Your task to perform on an android device: open app "Cash App" (install if not already installed) Image 0: 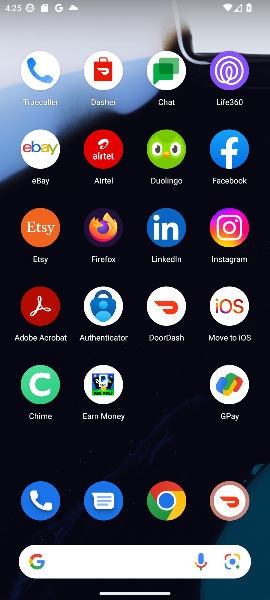
Step 0: press home button
Your task to perform on an android device: open app "Cash App" (install if not already installed) Image 1: 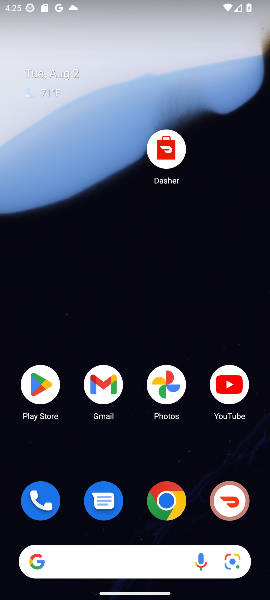
Step 1: click (47, 383)
Your task to perform on an android device: open app "Cash App" (install if not already installed) Image 2: 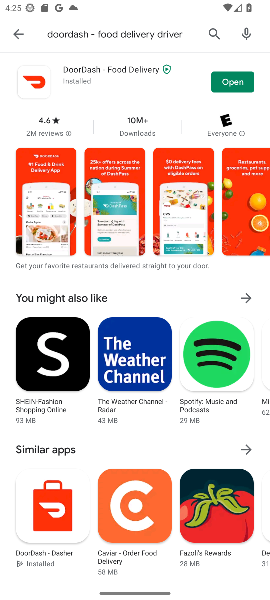
Step 2: click (207, 33)
Your task to perform on an android device: open app "Cash App" (install if not already installed) Image 3: 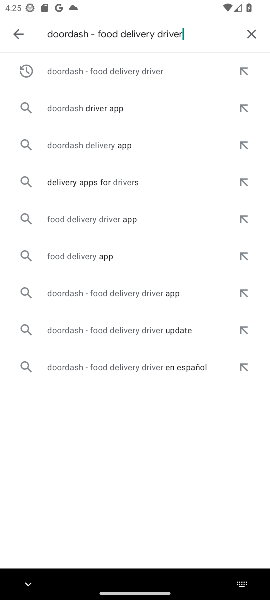
Step 3: click (251, 34)
Your task to perform on an android device: open app "Cash App" (install if not already installed) Image 4: 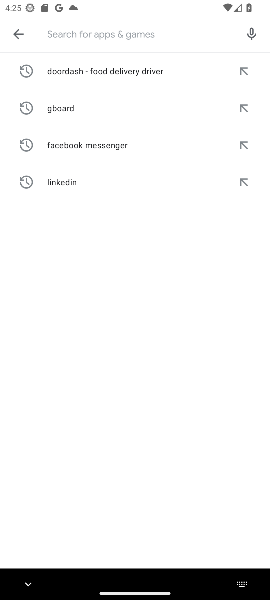
Step 4: type "Cash App"
Your task to perform on an android device: open app "Cash App" (install if not already installed) Image 5: 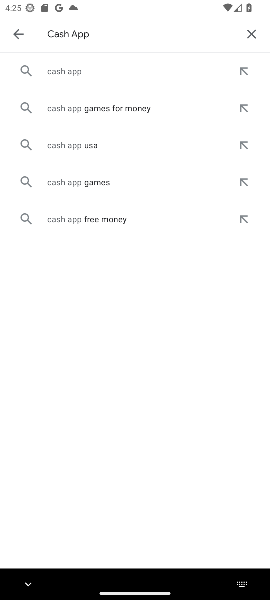
Step 5: click (72, 70)
Your task to perform on an android device: open app "Cash App" (install if not already installed) Image 6: 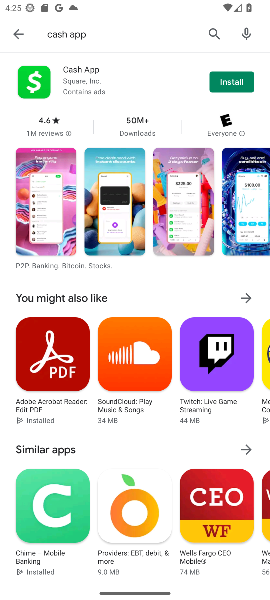
Step 6: click (234, 88)
Your task to perform on an android device: open app "Cash App" (install if not already installed) Image 7: 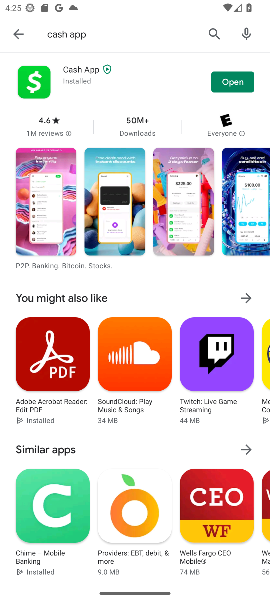
Step 7: click (235, 87)
Your task to perform on an android device: open app "Cash App" (install if not already installed) Image 8: 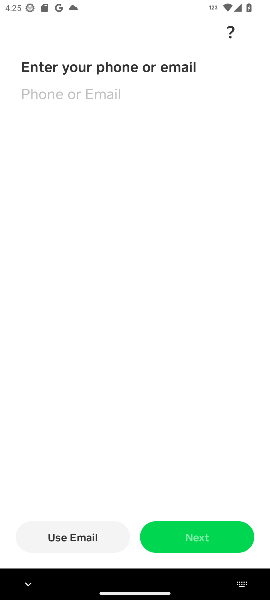
Step 8: task complete